Your task to perform on an android device: Open notification settings Image 0: 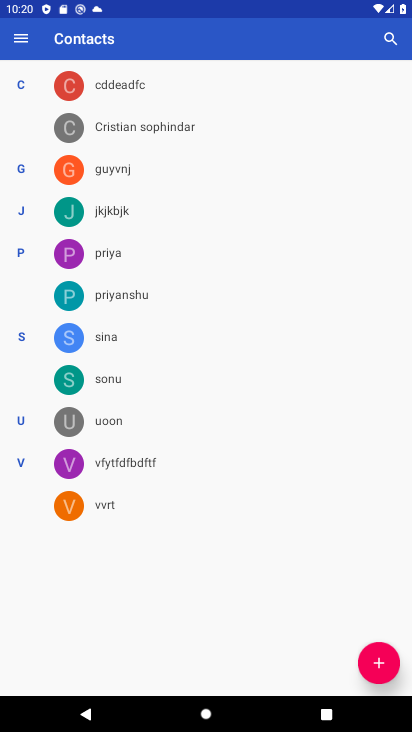
Step 0: press home button
Your task to perform on an android device: Open notification settings Image 1: 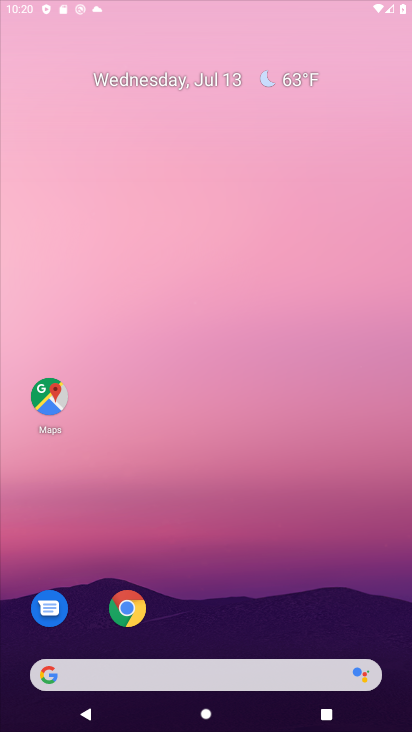
Step 1: drag from (235, 517) to (332, 46)
Your task to perform on an android device: Open notification settings Image 2: 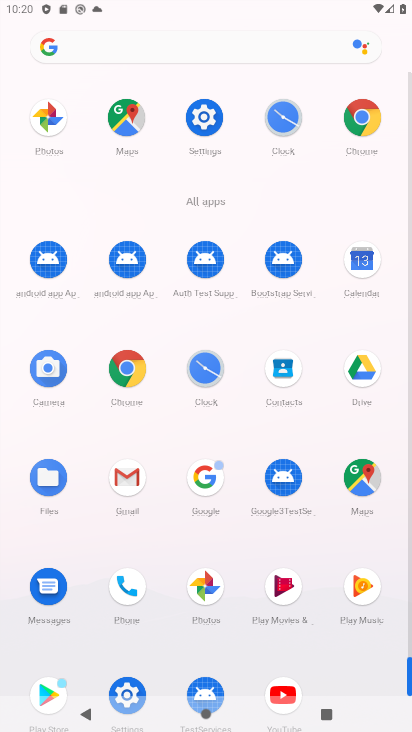
Step 2: click (129, 684)
Your task to perform on an android device: Open notification settings Image 3: 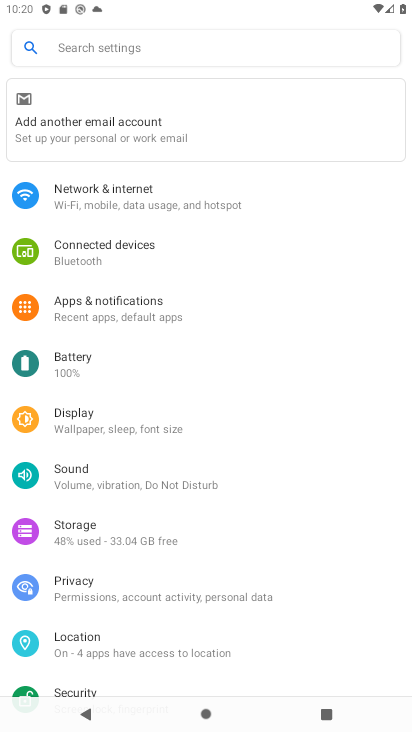
Step 3: click (142, 317)
Your task to perform on an android device: Open notification settings Image 4: 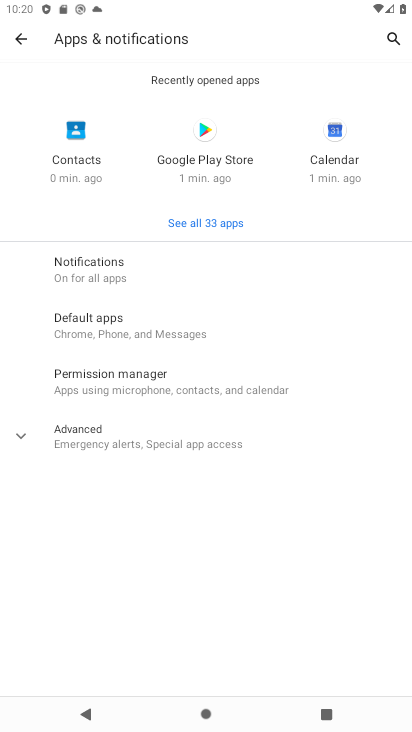
Step 4: click (129, 278)
Your task to perform on an android device: Open notification settings Image 5: 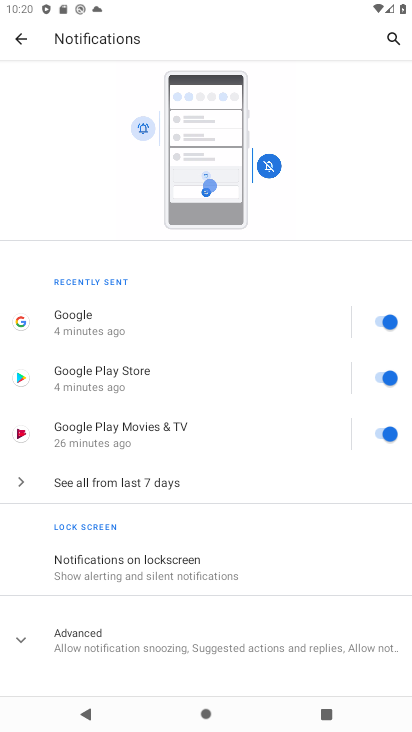
Step 5: task complete